Your task to perform on an android device: Go to CNN.com Image 0: 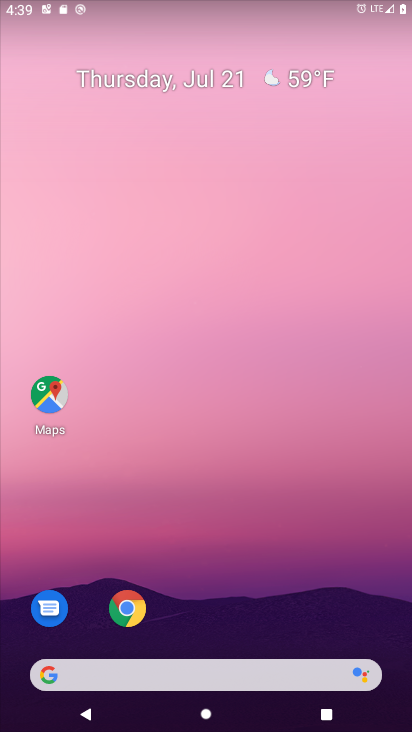
Step 0: drag from (144, 681) to (109, 217)
Your task to perform on an android device: Go to CNN.com Image 1: 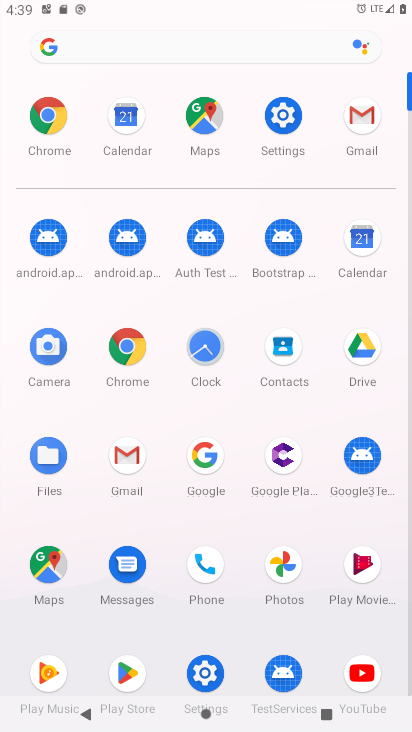
Step 1: click (129, 353)
Your task to perform on an android device: Go to CNN.com Image 2: 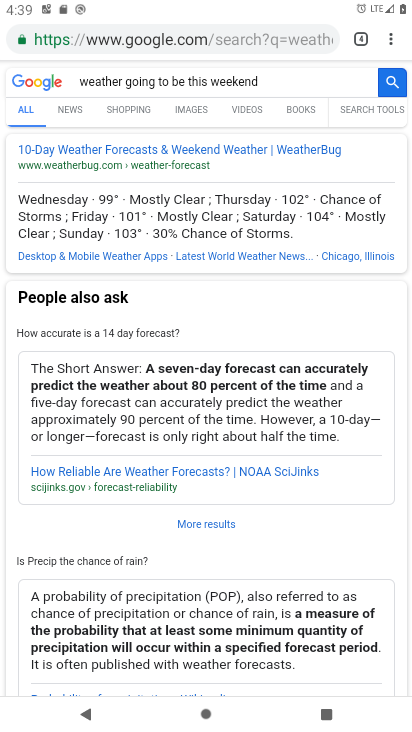
Step 2: drag from (399, 39) to (297, 75)
Your task to perform on an android device: Go to CNN.com Image 3: 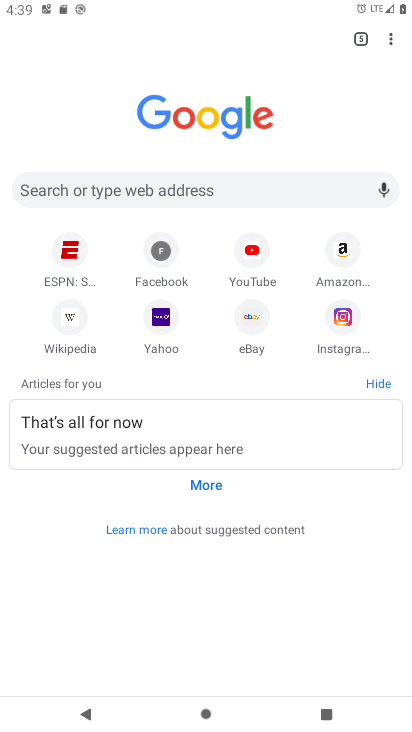
Step 3: click (255, 188)
Your task to perform on an android device: Go to CNN.com Image 4: 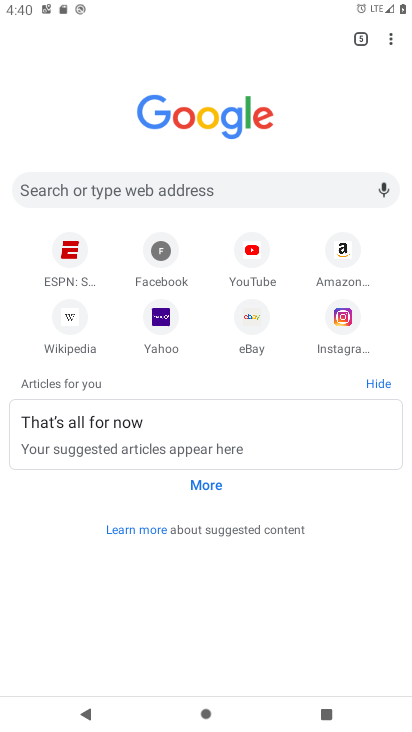
Step 4: click (255, 188)
Your task to perform on an android device: Go to CNN.com Image 5: 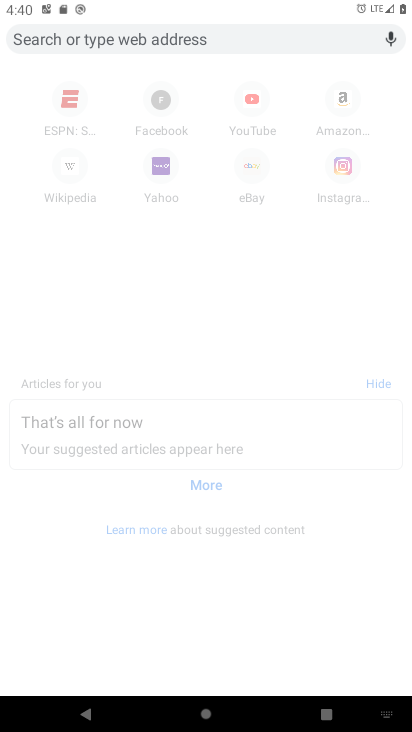
Step 5: type "cnn.com"
Your task to perform on an android device: Go to CNN.com Image 6: 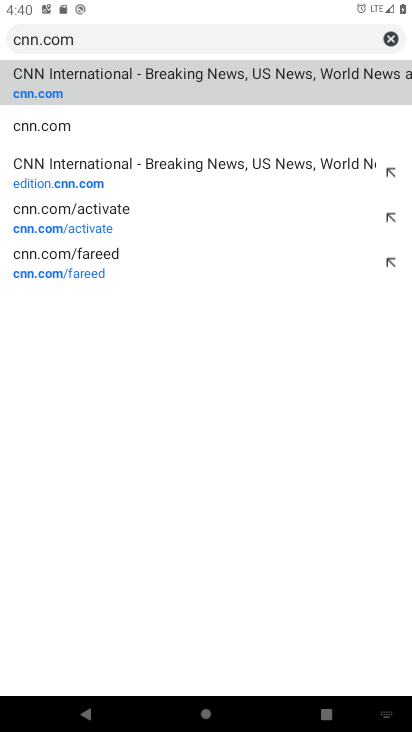
Step 6: click (156, 86)
Your task to perform on an android device: Go to CNN.com Image 7: 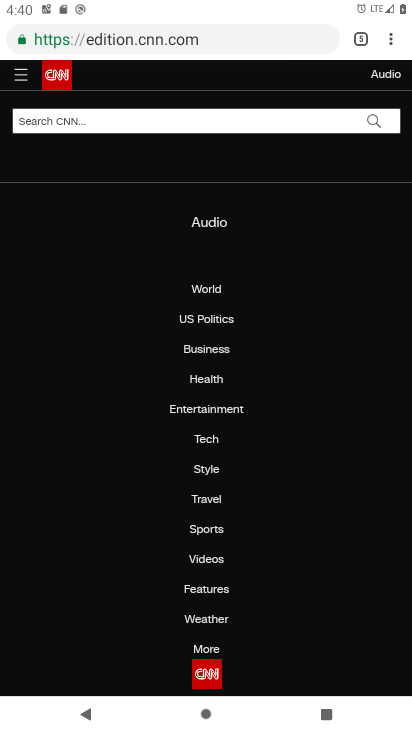
Step 7: task complete